Your task to perform on an android device: Do I have any events today? Image 0: 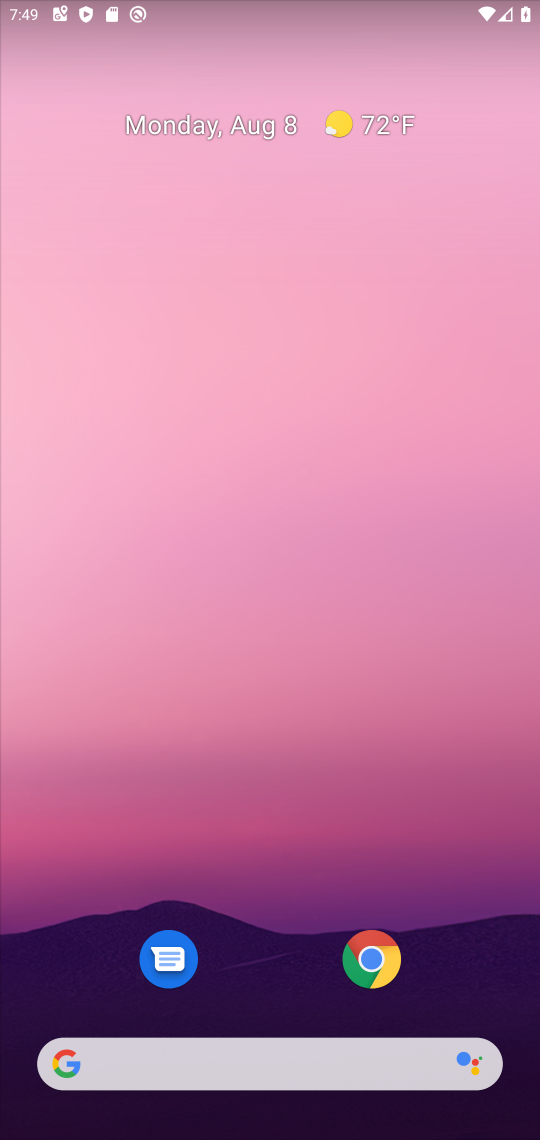
Step 0: drag from (476, 982) to (218, 59)
Your task to perform on an android device: Do I have any events today? Image 1: 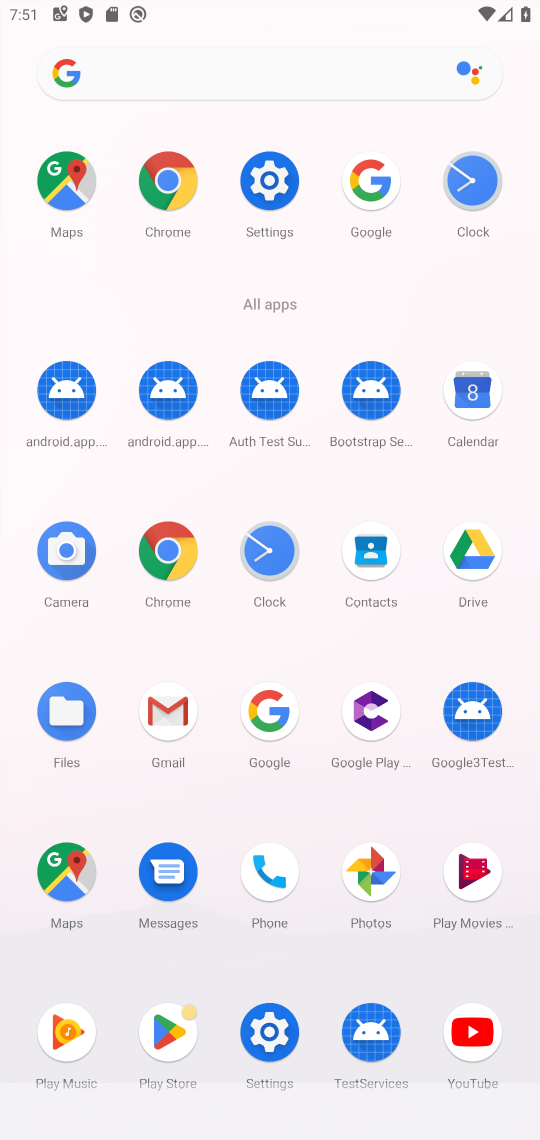
Step 1: click (464, 412)
Your task to perform on an android device: Do I have any events today? Image 2: 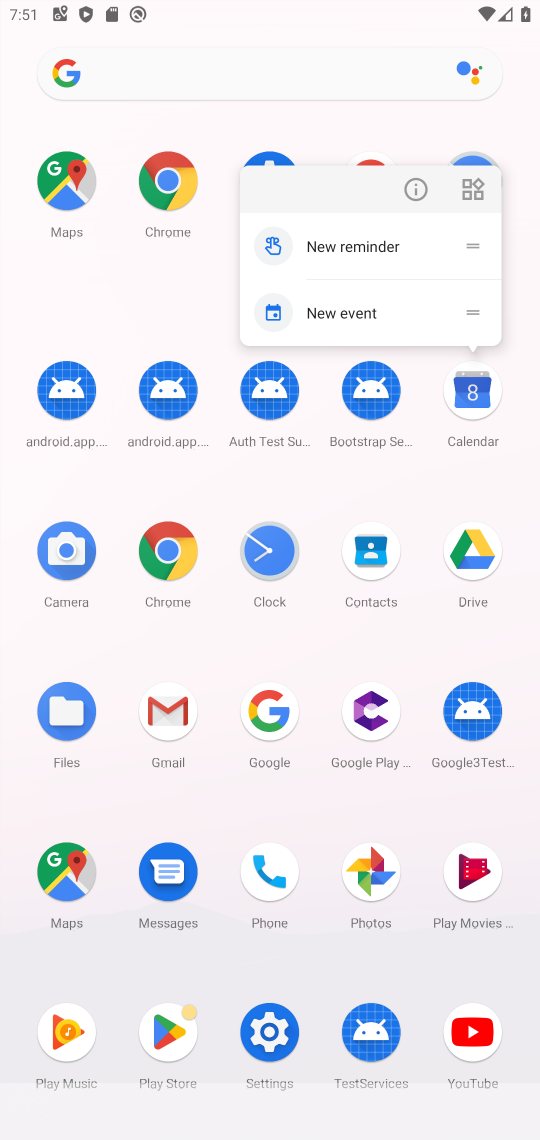
Step 2: click (464, 412)
Your task to perform on an android device: Do I have any events today? Image 3: 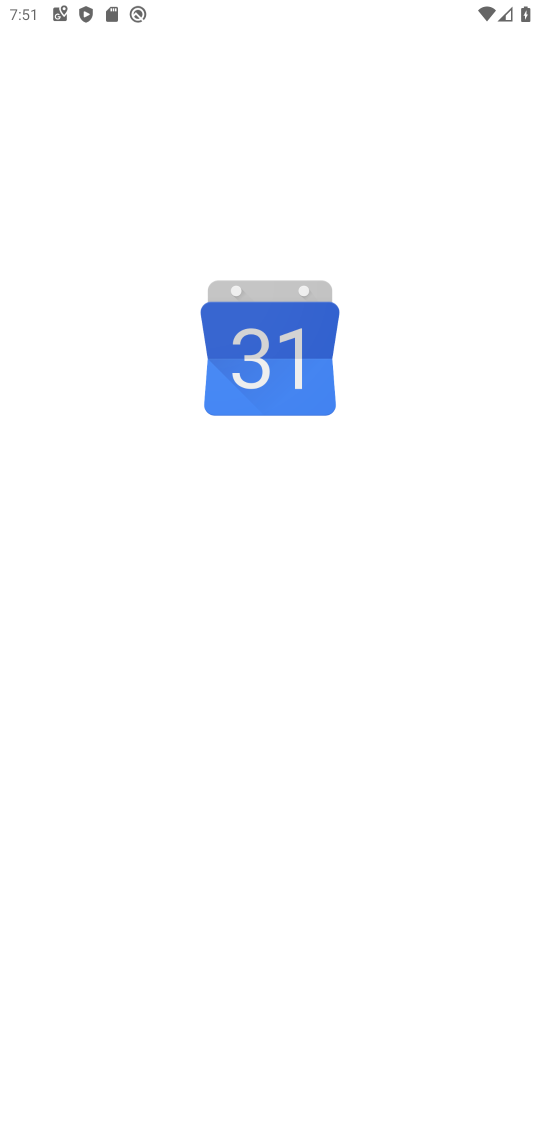
Step 3: click (464, 412)
Your task to perform on an android device: Do I have any events today? Image 4: 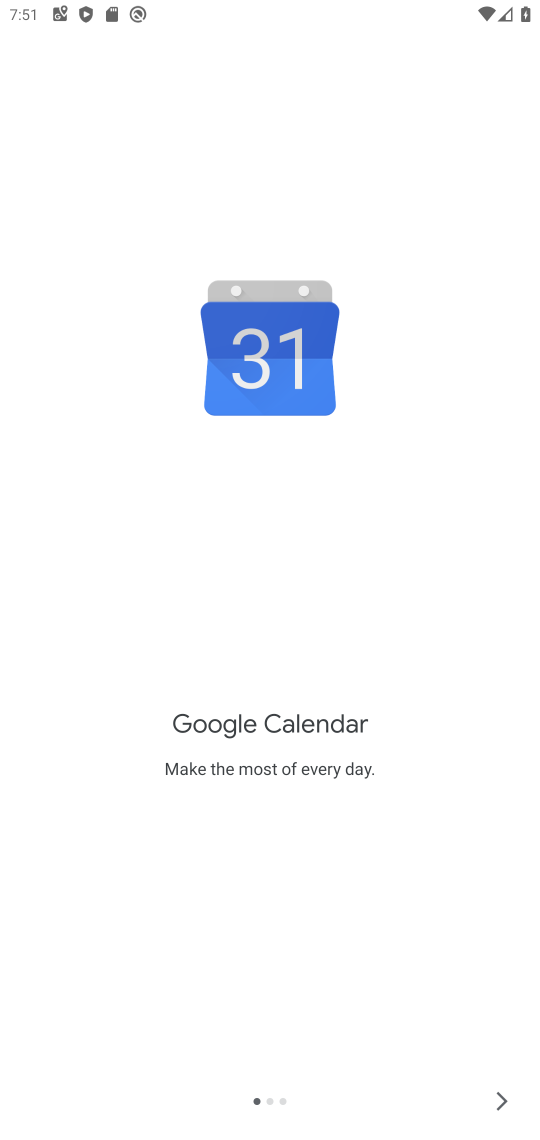
Step 4: click (496, 1090)
Your task to perform on an android device: Do I have any events today? Image 5: 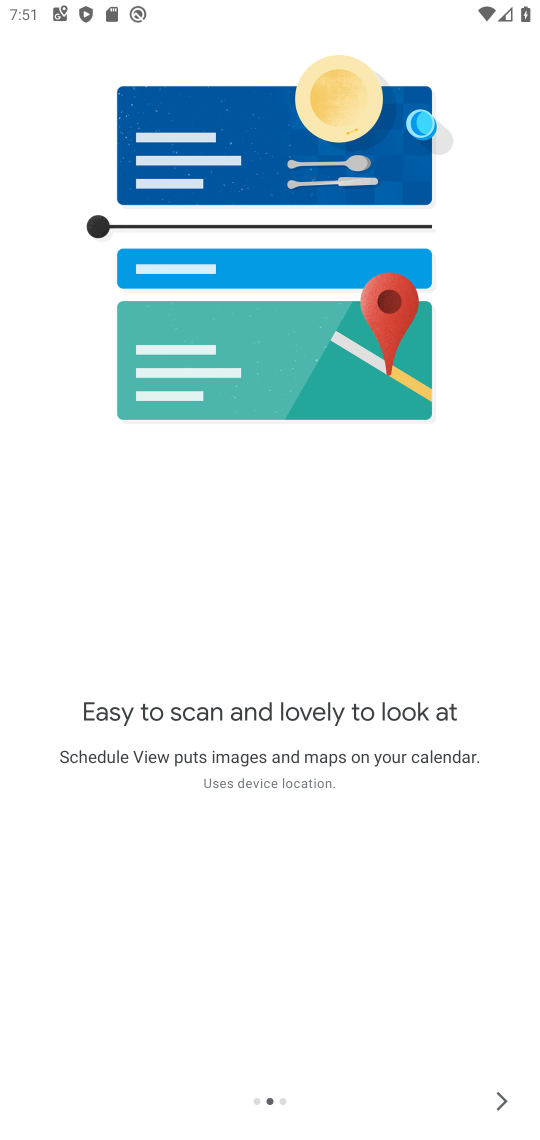
Step 5: click (496, 1090)
Your task to perform on an android device: Do I have any events today? Image 6: 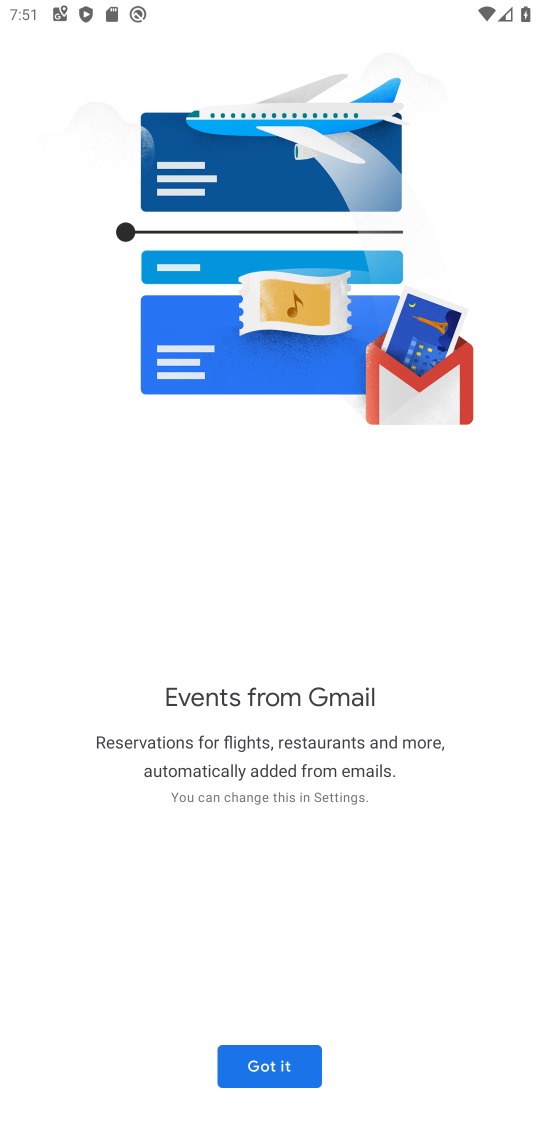
Step 6: click (245, 1074)
Your task to perform on an android device: Do I have any events today? Image 7: 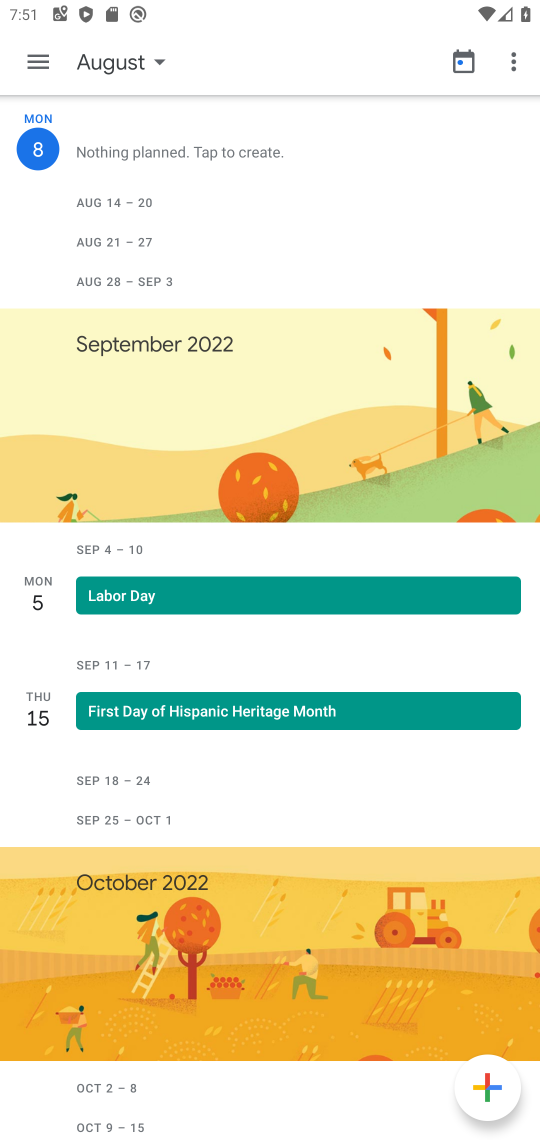
Step 7: task complete